Your task to perform on an android device: Reply to the most recent email I received with 'I like this one a lot!' and CC tau.vivianbrenna.1654798856750@gmail.com Image 0: 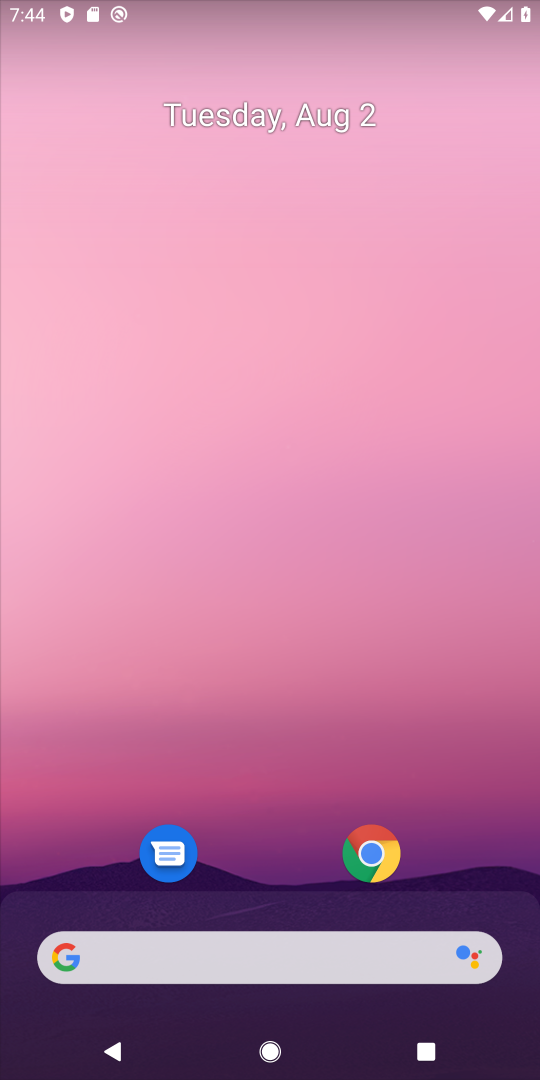
Step 0: drag from (237, 723) to (298, 104)
Your task to perform on an android device: Reply to the most recent email I received with 'I like this one a lot!' and CC tau.vivianbrenna.1654798856750@gmail.com Image 1: 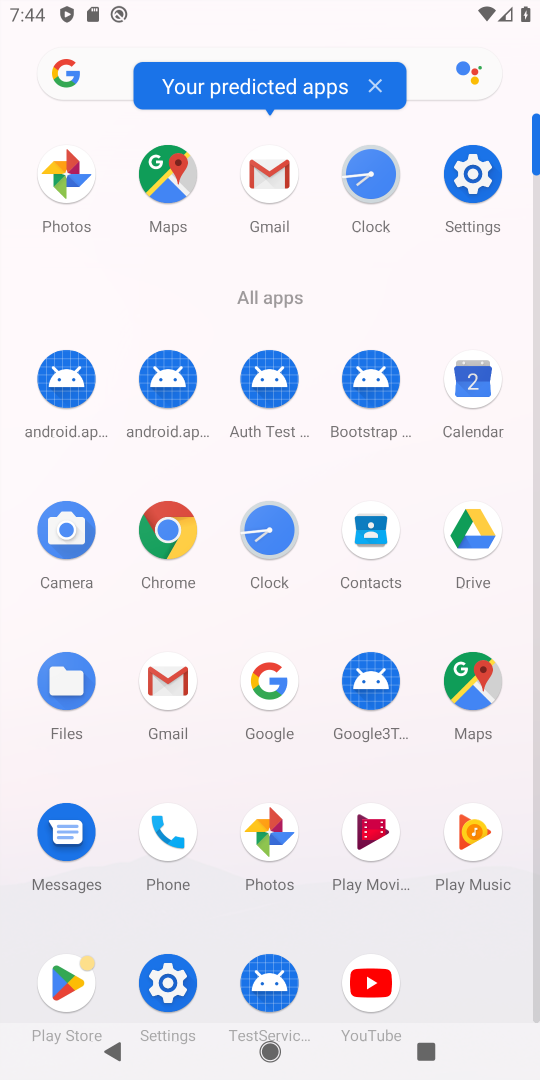
Step 1: click (291, 187)
Your task to perform on an android device: Reply to the most recent email I received with 'I like this one a lot!' and CC tau.vivianbrenna.1654798856750@gmail.com Image 2: 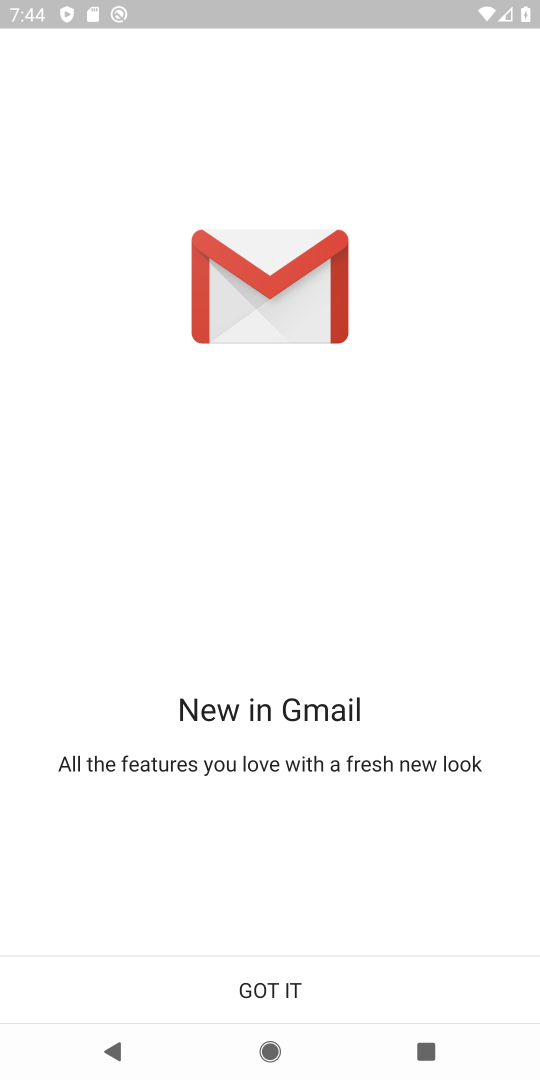
Step 2: click (276, 1005)
Your task to perform on an android device: Reply to the most recent email I received with 'I like this one a lot!' and CC tau.vivianbrenna.1654798856750@gmail.com Image 3: 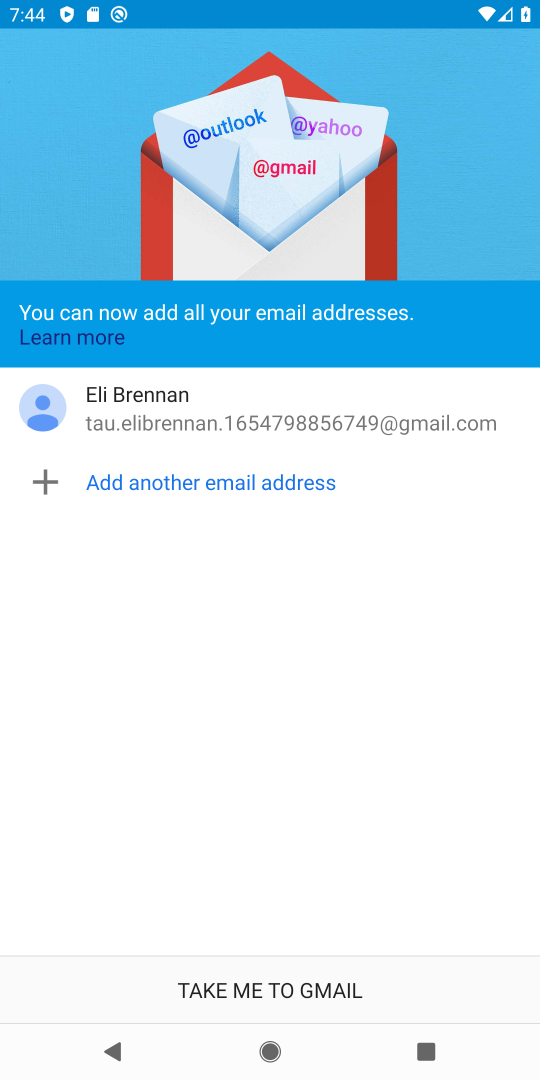
Step 3: click (290, 982)
Your task to perform on an android device: Reply to the most recent email I received with 'I like this one a lot!' and CC tau.vivianbrenna.1654798856750@gmail.com Image 4: 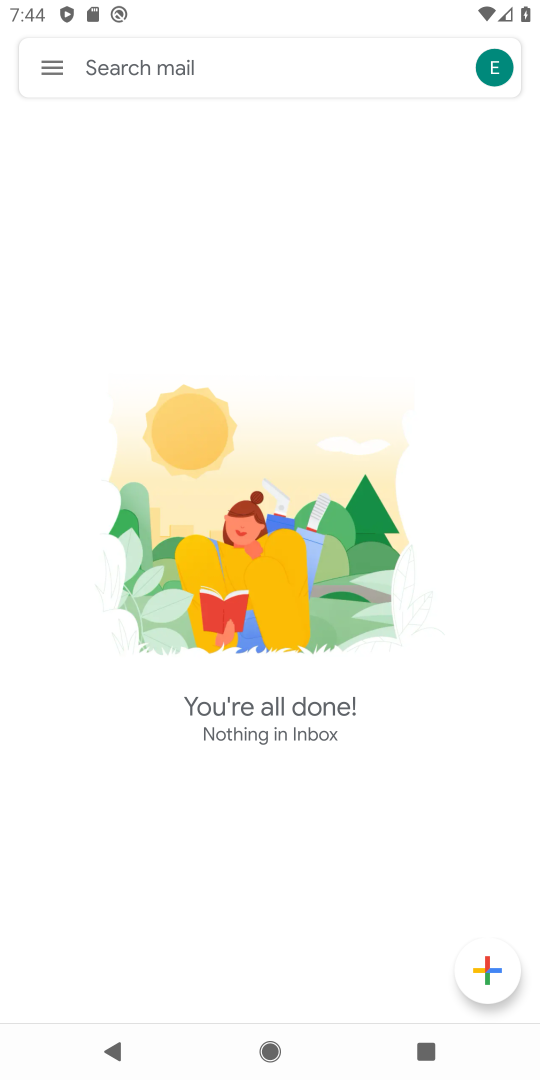
Step 4: click (54, 73)
Your task to perform on an android device: Reply to the most recent email I received with 'I like this one a lot!' and CC tau.vivianbrenna.1654798856750@gmail.com Image 5: 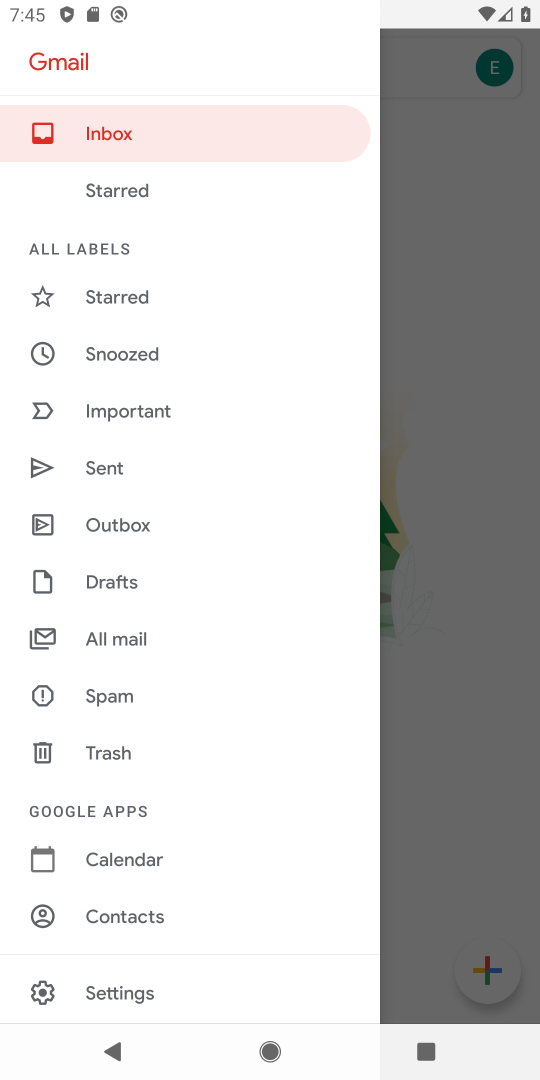
Step 5: click (119, 635)
Your task to perform on an android device: Reply to the most recent email I received with 'I like this one a lot!' and CC tau.vivianbrenna.1654798856750@gmail.com Image 6: 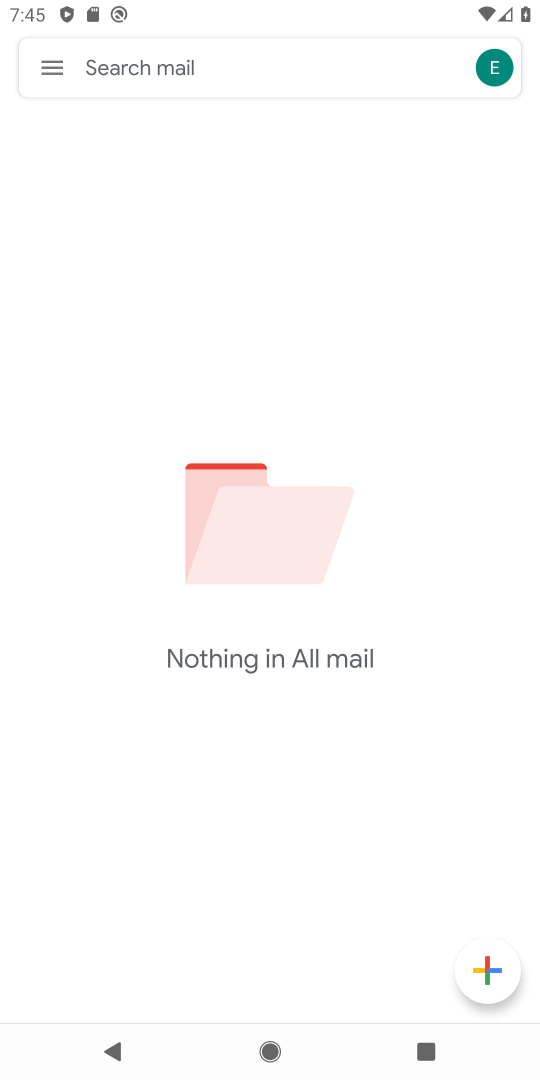
Step 6: task complete